Your task to perform on an android device: show emergency info Image 0: 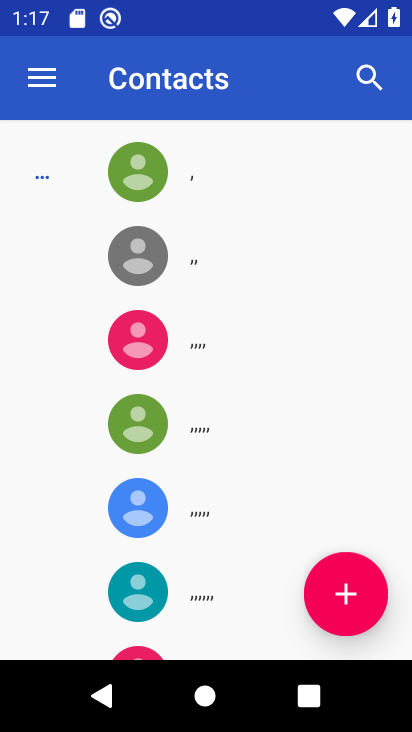
Step 0: press home button
Your task to perform on an android device: show emergency info Image 1: 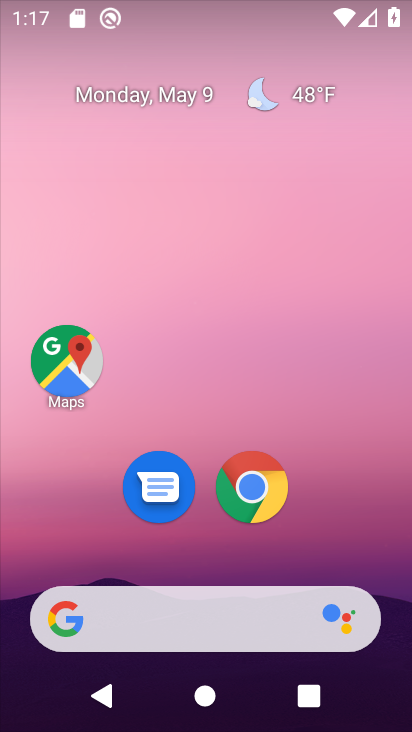
Step 1: drag from (178, 405) to (181, 191)
Your task to perform on an android device: show emergency info Image 2: 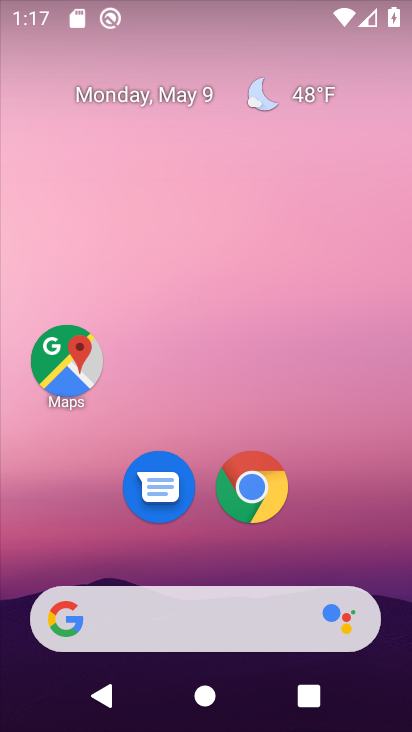
Step 2: drag from (215, 576) to (188, 90)
Your task to perform on an android device: show emergency info Image 3: 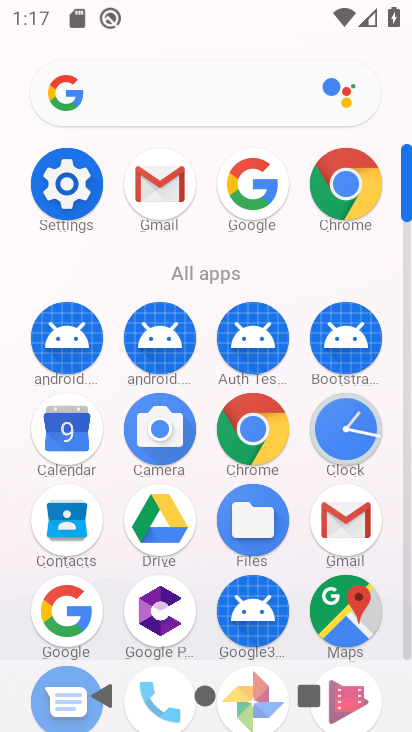
Step 3: click (69, 177)
Your task to perform on an android device: show emergency info Image 4: 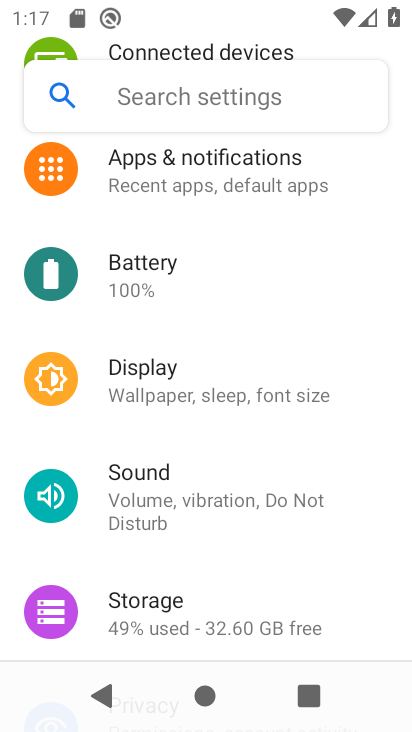
Step 4: drag from (158, 628) to (195, 171)
Your task to perform on an android device: show emergency info Image 5: 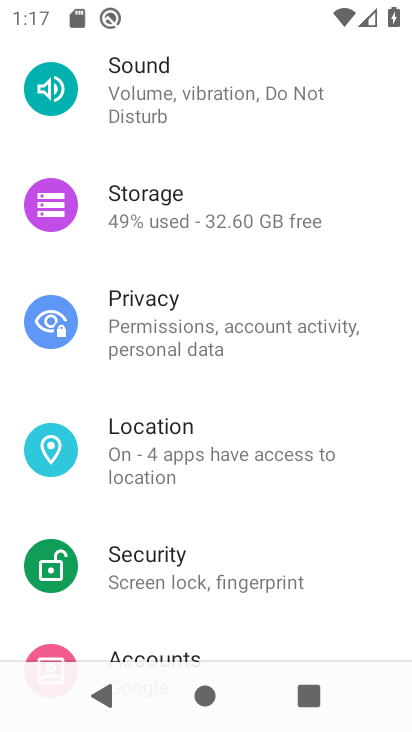
Step 5: drag from (172, 619) to (209, 219)
Your task to perform on an android device: show emergency info Image 6: 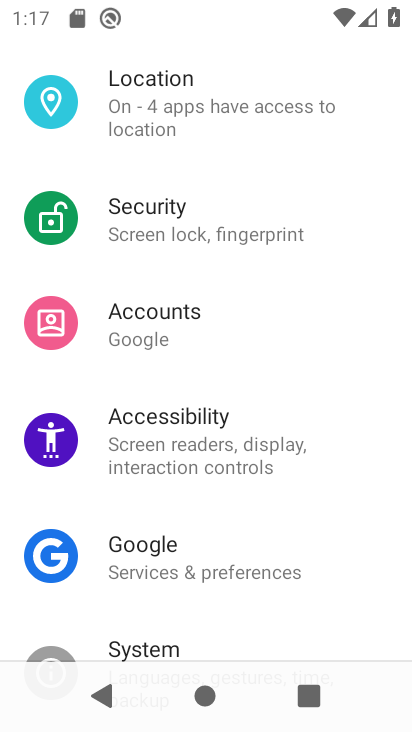
Step 6: drag from (156, 627) to (191, 211)
Your task to perform on an android device: show emergency info Image 7: 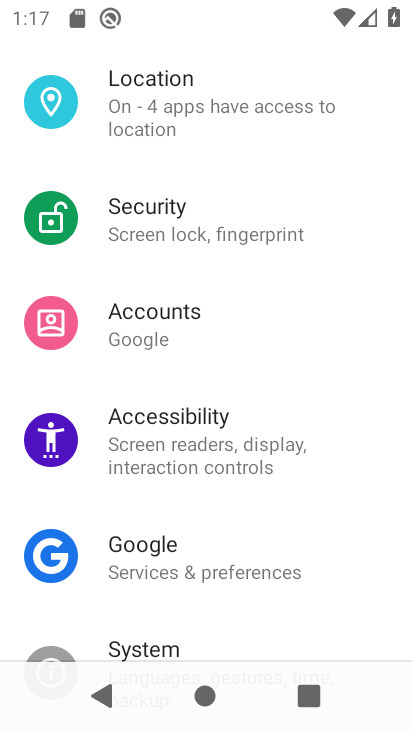
Step 7: drag from (186, 347) to (186, 233)
Your task to perform on an android device: show emergency info Image 8: 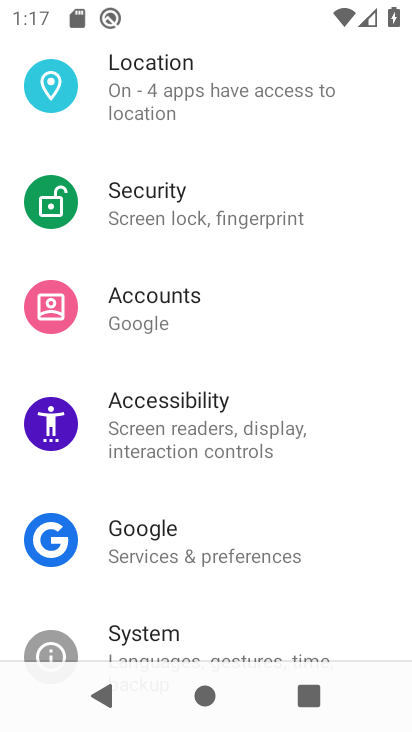
Step 8: click (174, 282)
Your task to perform on an android device: show emergency info Image 9: 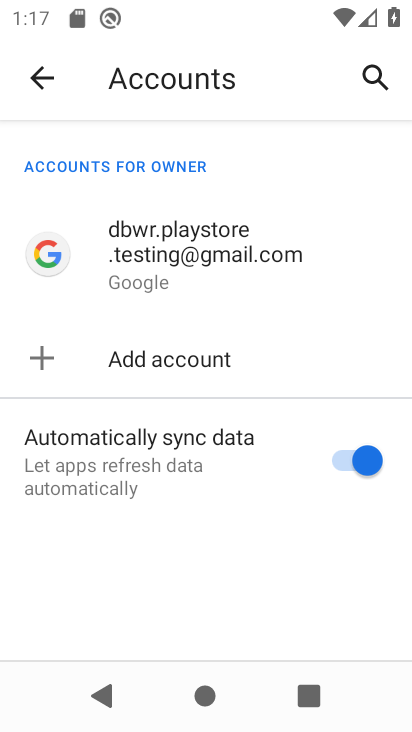
Step 9: click (45, 73)
Your task to perform on an android device: show emergency info Image 10: 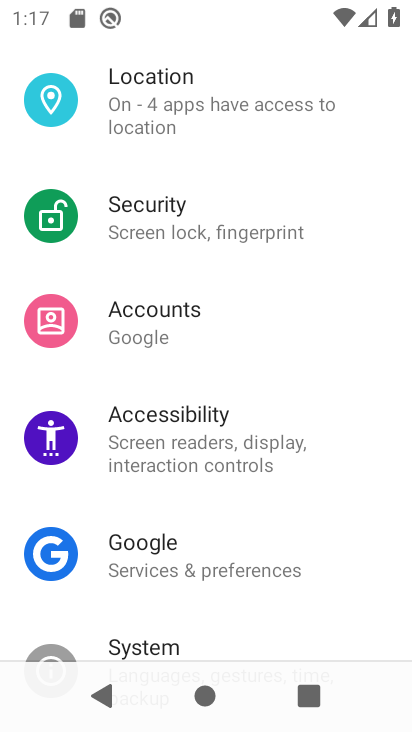
Step 10: drag from (183, 392) to (192, 269)
Your task to perform on an android device: show emergency info Image 11: 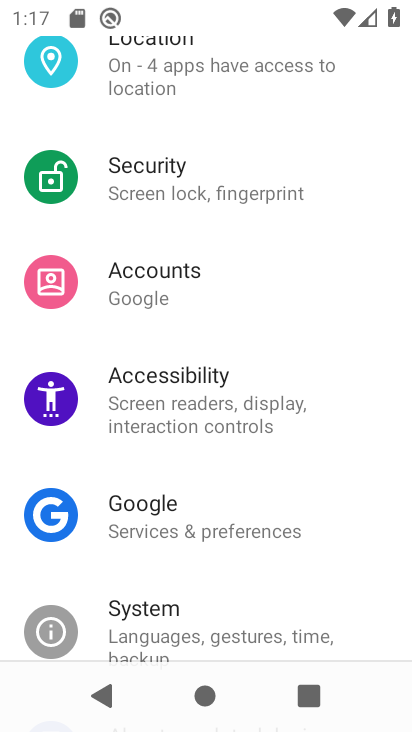
Step 11: drag from (195, 509) to (240, 196)
Your task to perform on an android device: show emergency info Image 12: 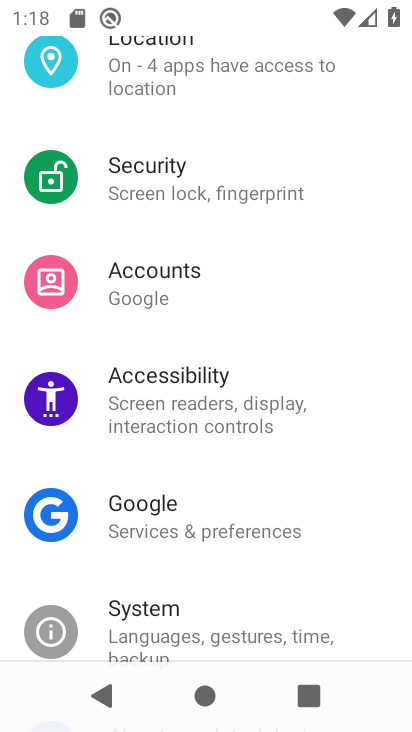
Step 12: drag from (193, 650) to (191, 378)
Your task to perform on an android device: show emergency info Image 13: 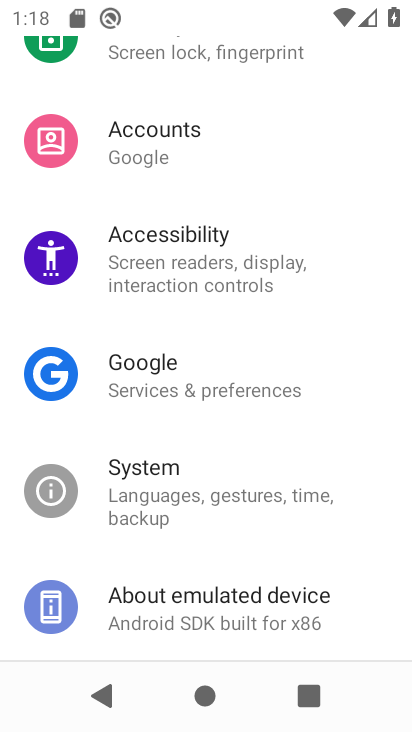
Step 13: click (158, 620)
Your task to perform on an android device: show emergency info Image 14: 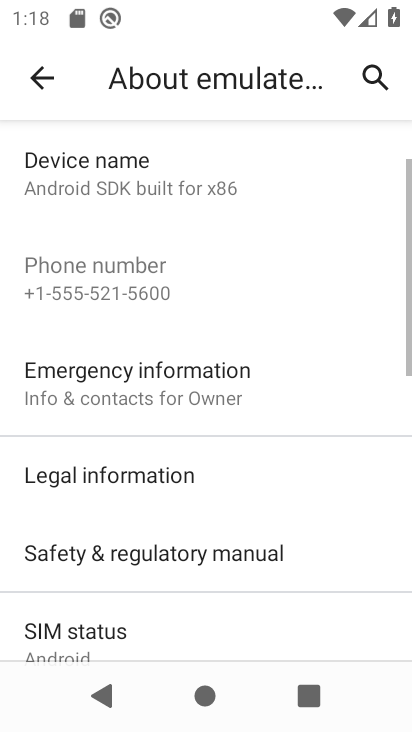
Step 14: click (78, 381)
Your task to perform on an android device: show emergency info Image 15: 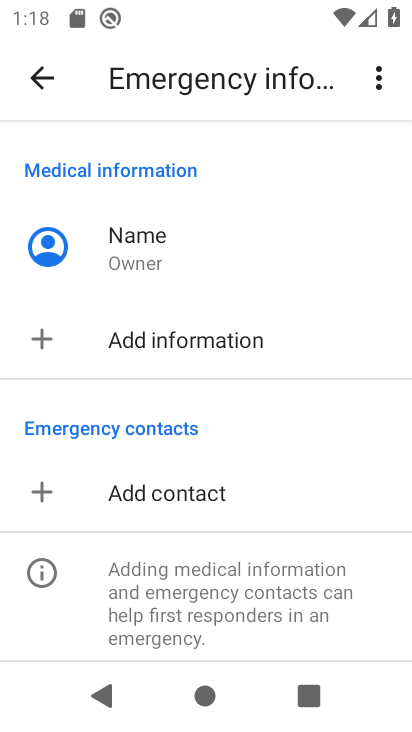
Step 15: task complete